Your task to perform on an android device: Open notification settings Image 0: 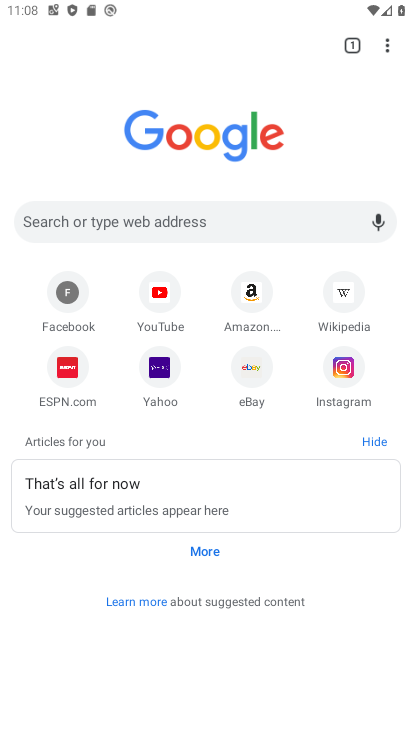
Step 0: press home button
Your task to perform on an android device: Open notification settings Image 1: 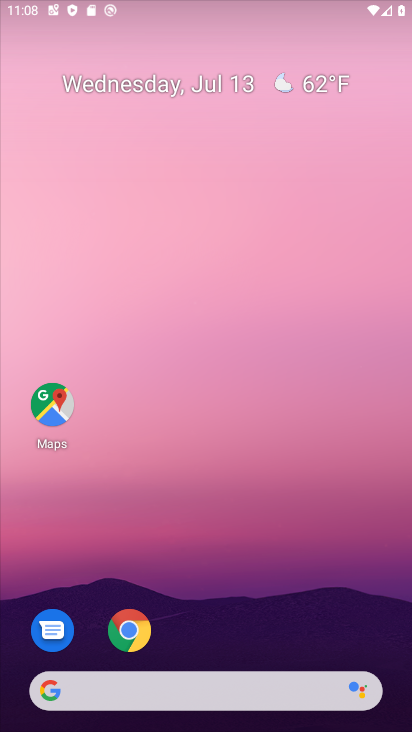
Step 1: drag from (210, 463) to (173, 1)
Your task to perform on an android device: Open notification settings Image 2: 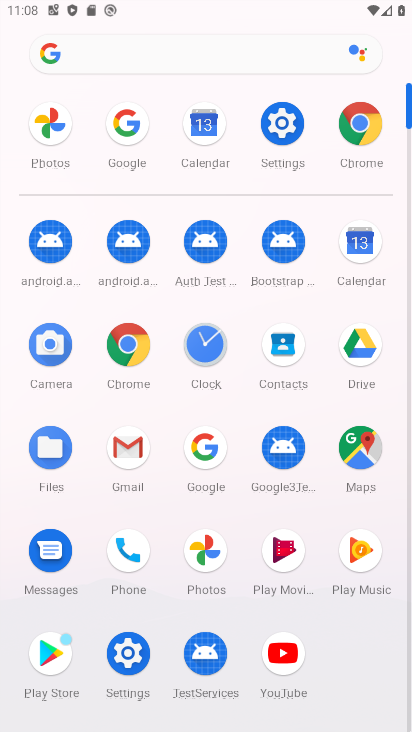
Step 2: click (261, 121)
Your task to perform on an android device: Open notification settings Image 3: 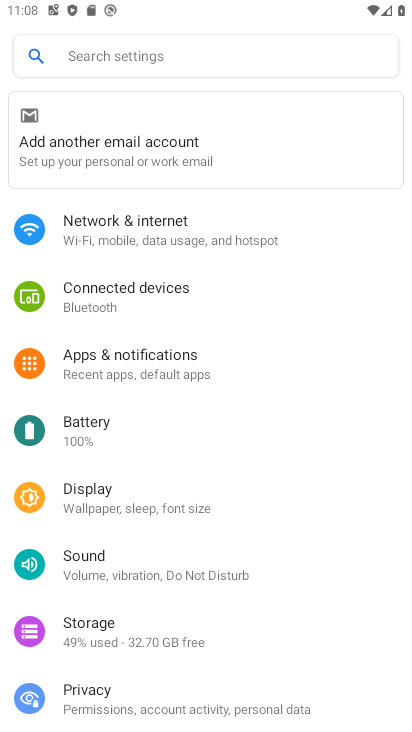
Step 3: click (149, 364)
Your task to perform on an android device: Open notification settings Image 4: 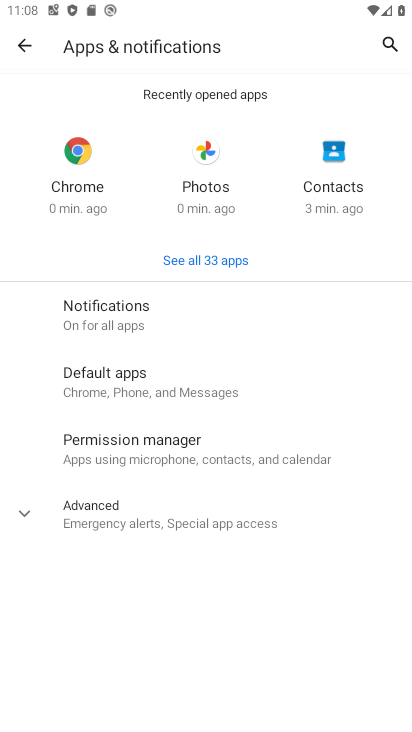
Step 4: click (119, 312)
Your task to perform on an android device: Open notification settings Image 5: 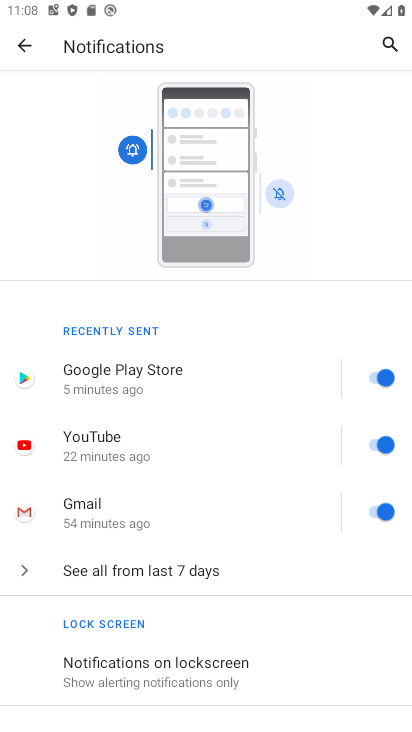
Step 5: task complete